Your task to perform on an android device: toggle pop-ups in chrome Image 0: 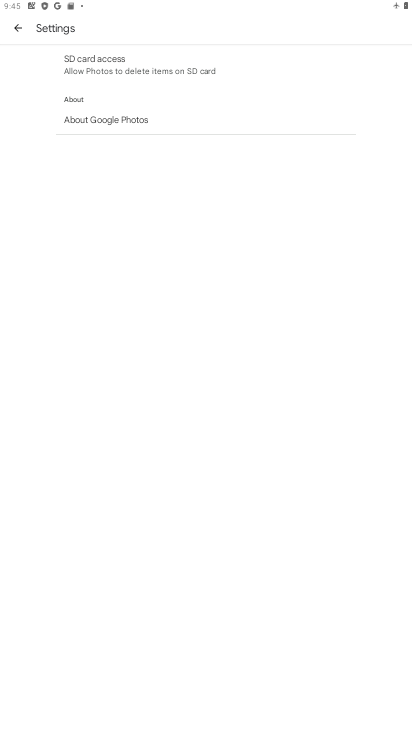
Step 0: task complete